Your task to perform on an android device: check google app version Image 0: 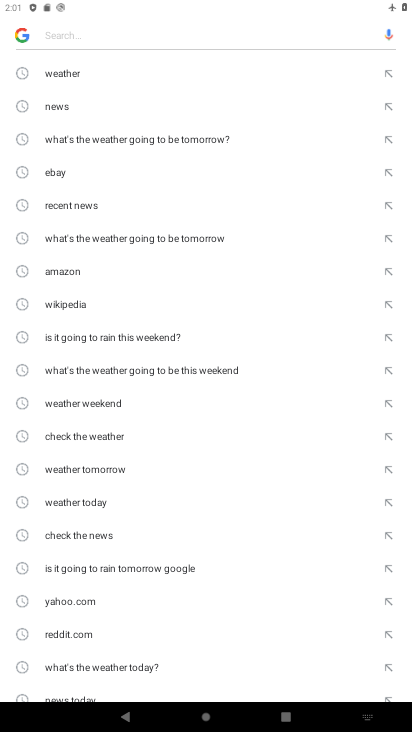
Step 0: press home button
Your task to perform on an android device: check google app version Image 1: 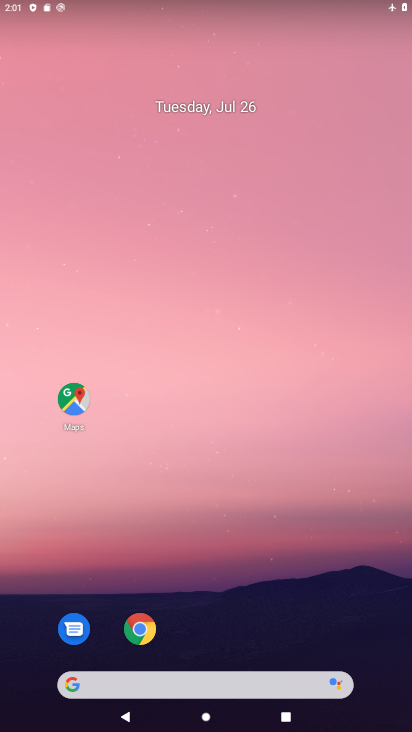
Step 1: drag from (107, 674) to (108, 43)
Your task to perform on an android device: check google app version Image 2: 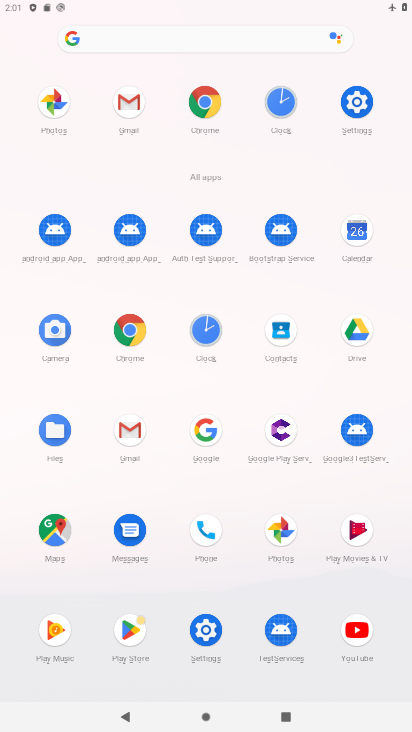
Step 2: click (206, 430)
Your task to perform on an android device: check google app version Image 3: 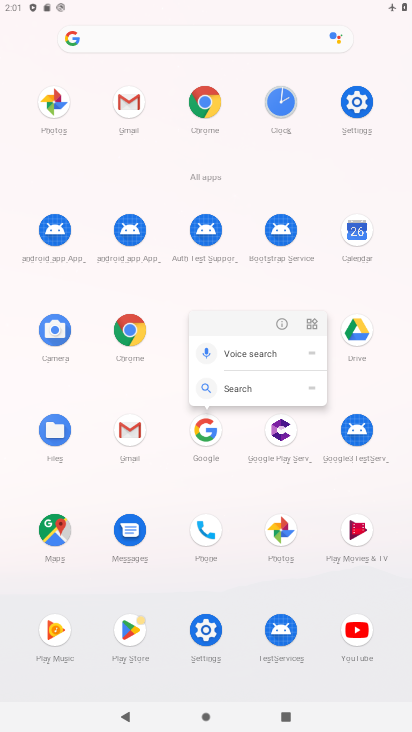
Step 3: click (278, 319)
Your task to perform on an android device: check google app version Image 4: 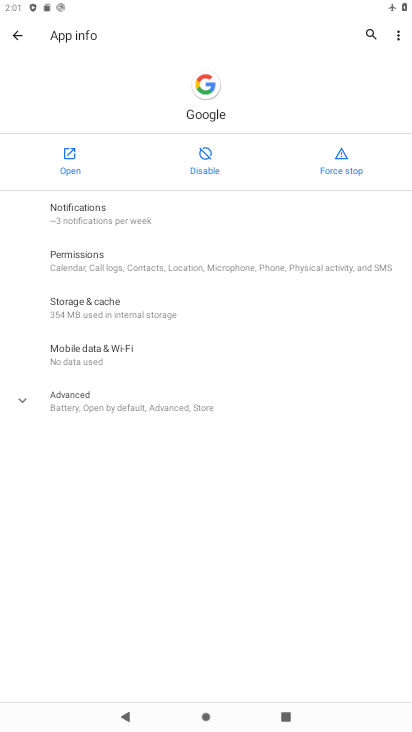
Step 4: click (77, 399)
Your task to perform on an android device: check google app version Image 5: 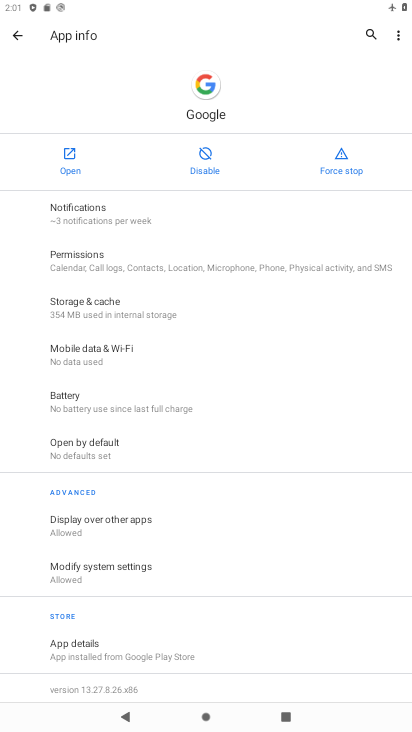
Step 5: task complete